Your task to perform on an android device: Open accessibility settings Image 0: 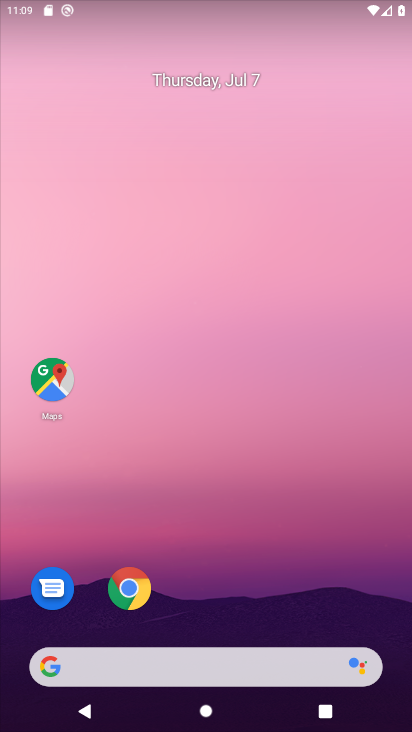
Step 0: press home button
Your task to perform on an android device: Open accessibility settings Image 1: 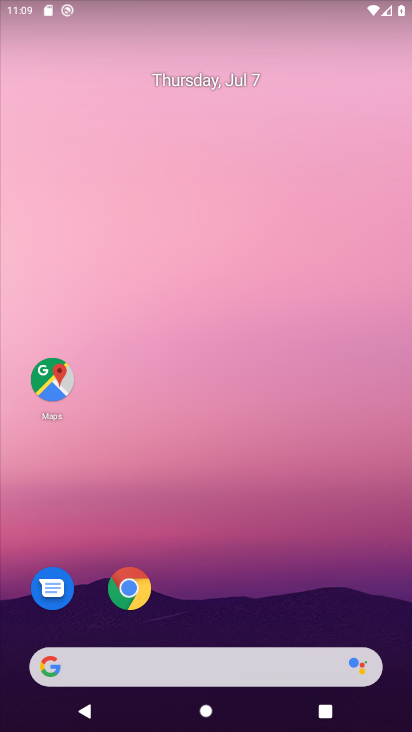
Step 1: drag from (208, 664) to (270, 135)
Your task to perform on an android device: Open accessibility settings Image 2: 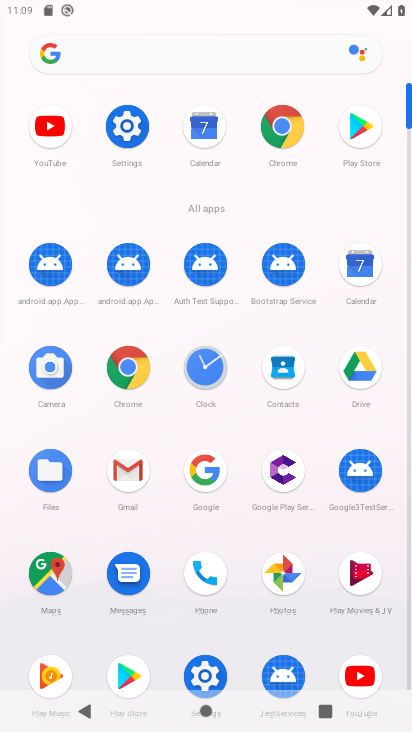
Step 2: click (130, 126)
Your task to perform on an android device: Open accessibility settings Image 3: 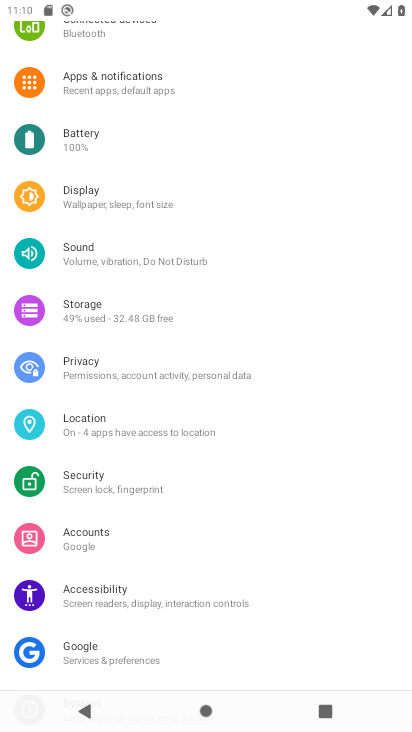
Step 3: drag from (231, 166) to (260, 496)
Your task to perform on an android device: Open accessibility settings Image 4: 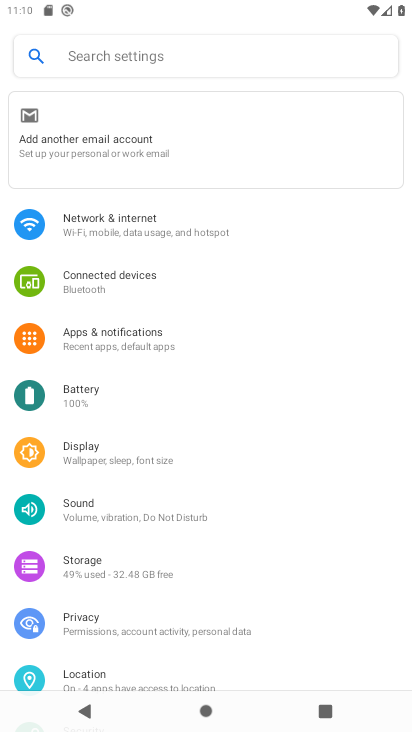
Step 4: drag from (212, 568) to (258, 302)
Your task to perform on an android device: Open accessibility settings Image 5: 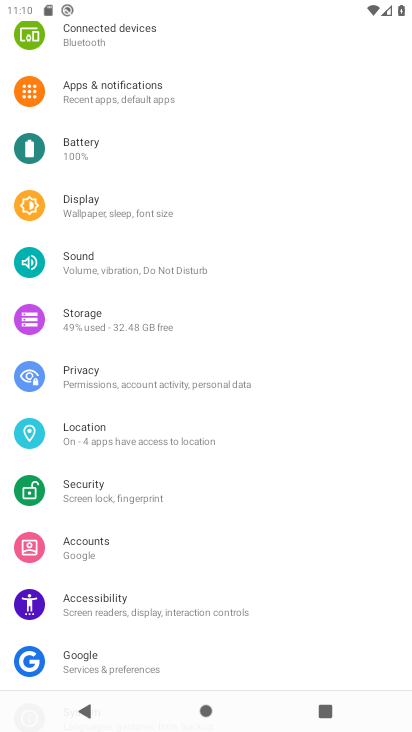
Step 5: click (133, 595)
Your task to perform on an android device: Open accessibility settings Image 6: 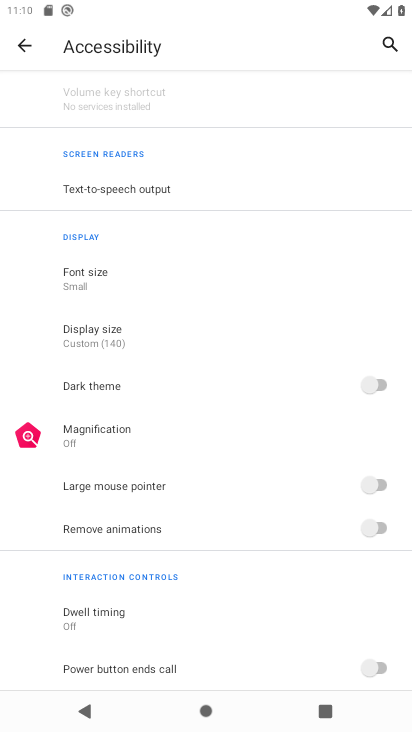
Step 6: task complete